Your task to perform on an android device: add a contact in the contacts app Image 0: 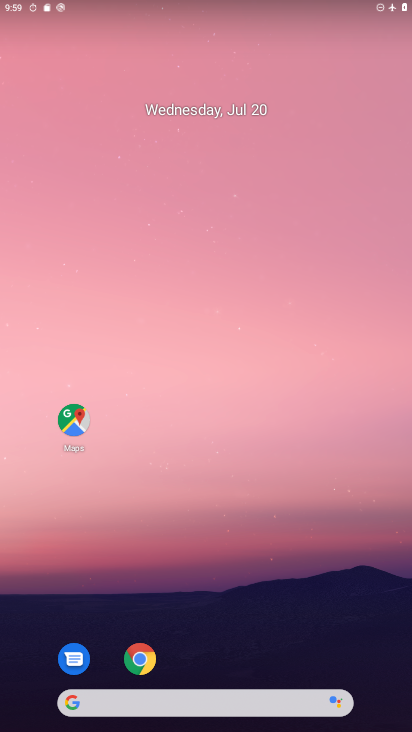
Step 0: drag from (299, 655) to (197, 133)
Your task to perform on an android device: add a contact in the contacts app Image 1: 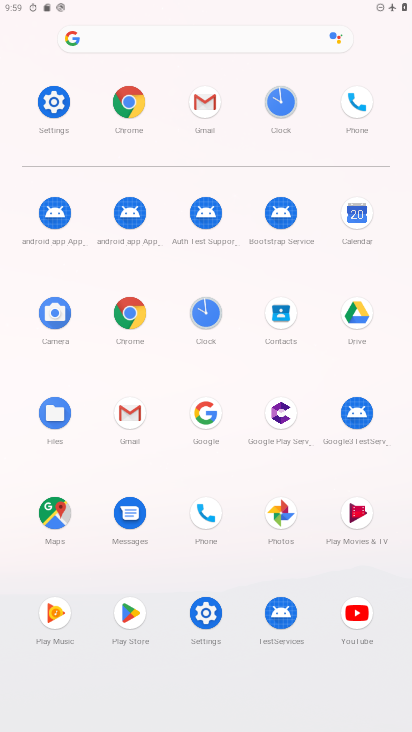
Step 1: click (277, 316)
Your task to perform on an android device: add a contact in the contacts app Image 2: 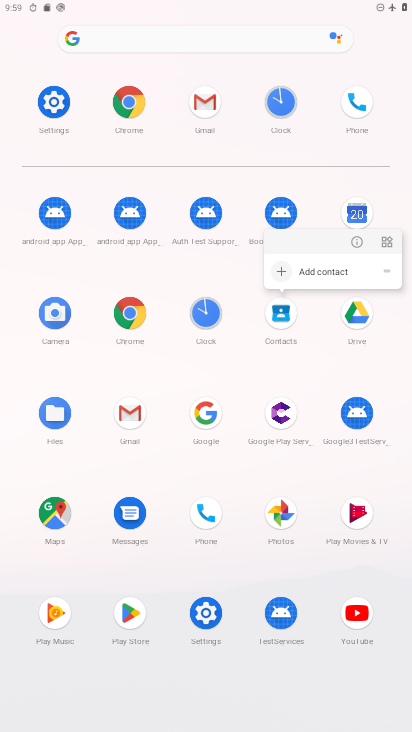
Step 2: click (278, 318)
Your task to perform on an android device: add a contact in the contacts app Image 3: 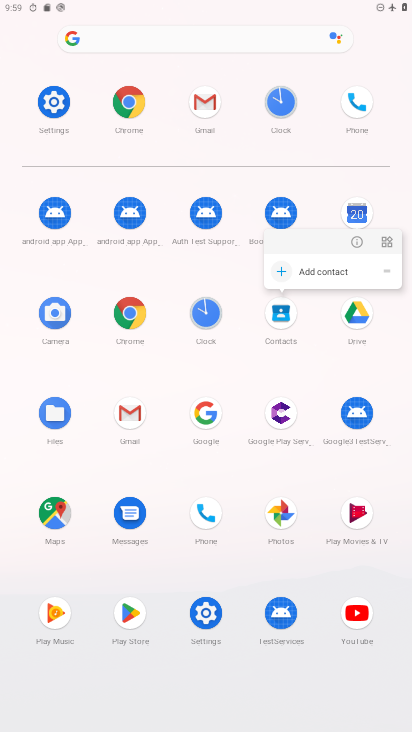
Step 3: click (278, 318)
Your task to perform on an android device: add a contact in the contacts app Image 4: 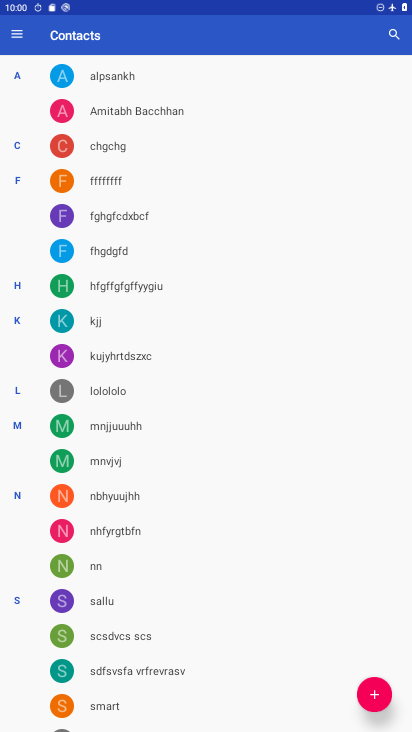
Step 4: click (373, 682)
Your task to perform on an android device: add a contact in the contacts app Image 5: 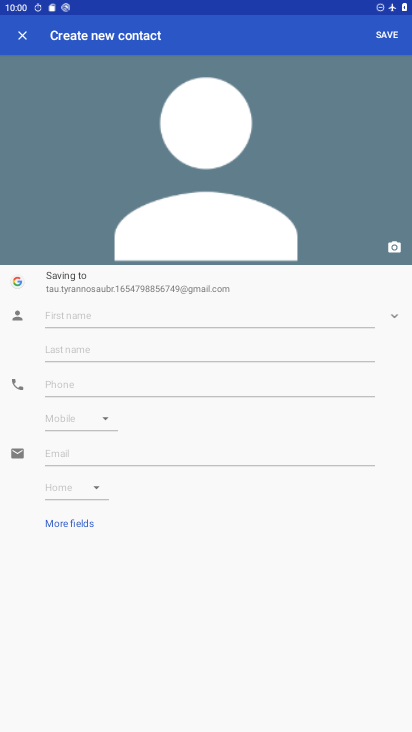
Step 5: click (92, 329)
Your task to perform on an android device: add a contact in the contacts app Image 6: 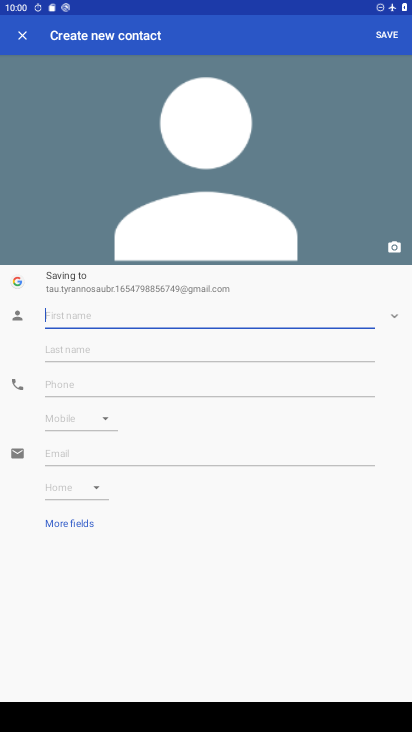
Step 6: type "guussa"
Your task to perform on an android device: add a contact in the contacts app Image 7: 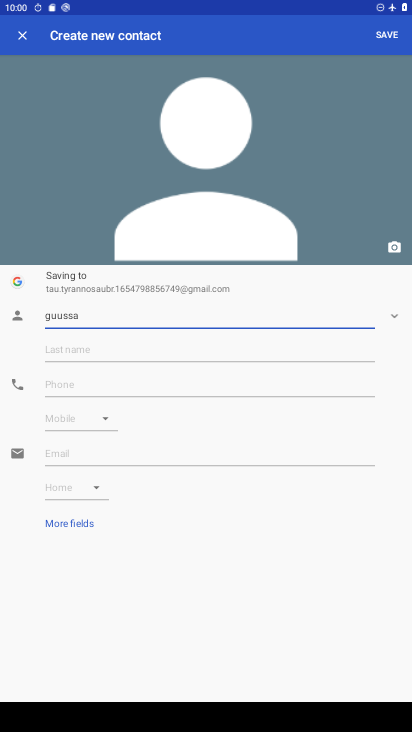
Step 7: task complete